Your task to perform on an android device: Open Google Maps and go to "Timeline" Image 0: 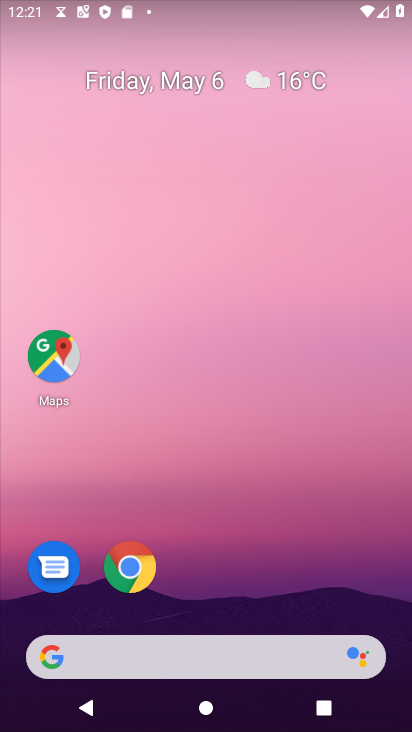
Step 0: drag from (260, 604) to (351, 119)
Your task to perform on an android device: Open Google Maps and go to "Timeline" Image 1: 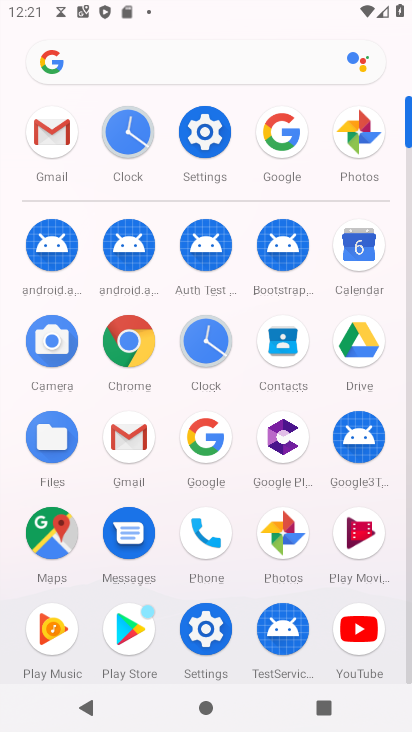
Step 1: click (51, 537)
Your task to perform on an android device: Open Google Maps and go to "Timeline" Image 2: 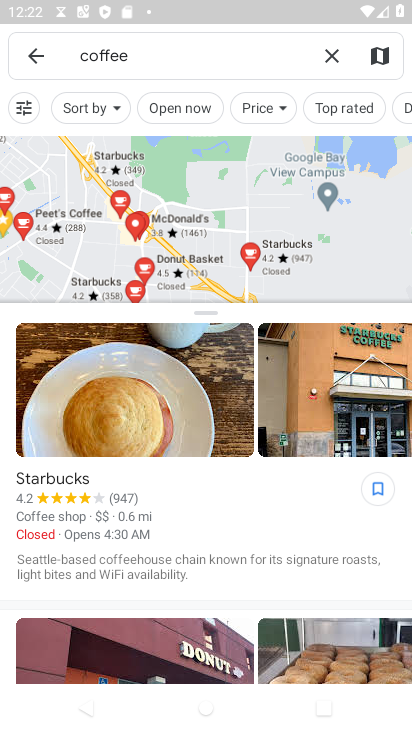
Step 2: click (32, 57)
Your task to perform on an android device: Open Google Maps and go to "Timeline" Image 3: 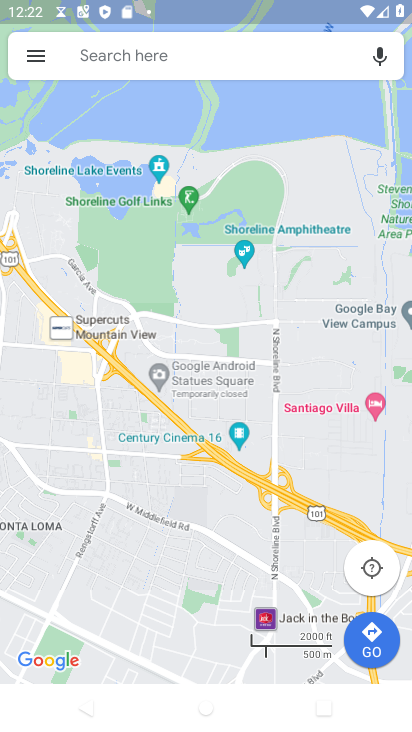
Step 3: click (32, 56)
Your task to perform on an android device: Open Google Maps and go to "Timeline" Image 4: 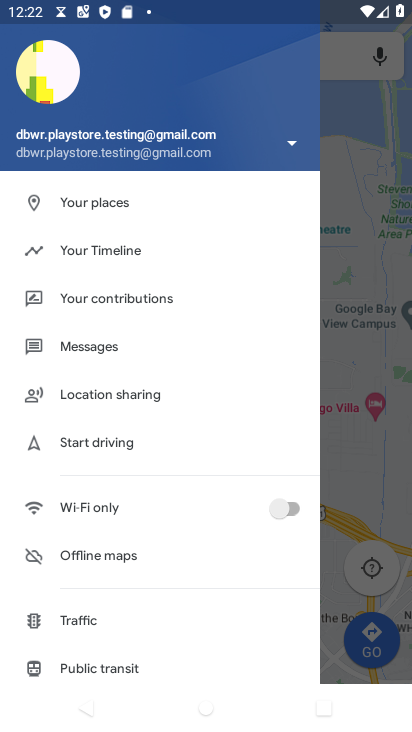
Step 4: click (109, 258)
Your task to perform on an android device: Open Google Maps and go to "Timeline" Image 5: 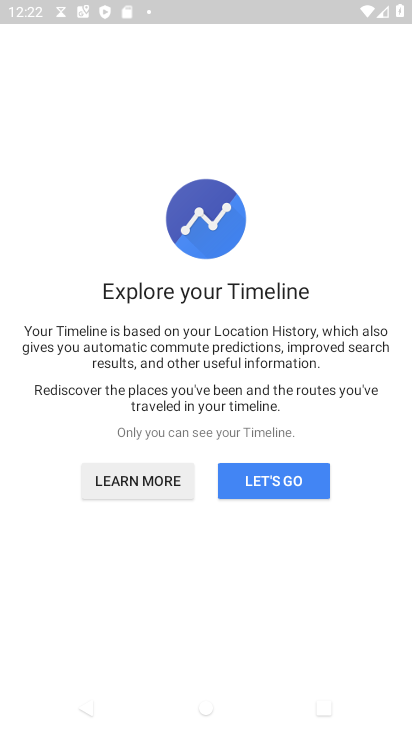
Step 5: click (294, 485)
Your task to perform on an android device: Open Google Maps and go to "Timeline" Image 6: 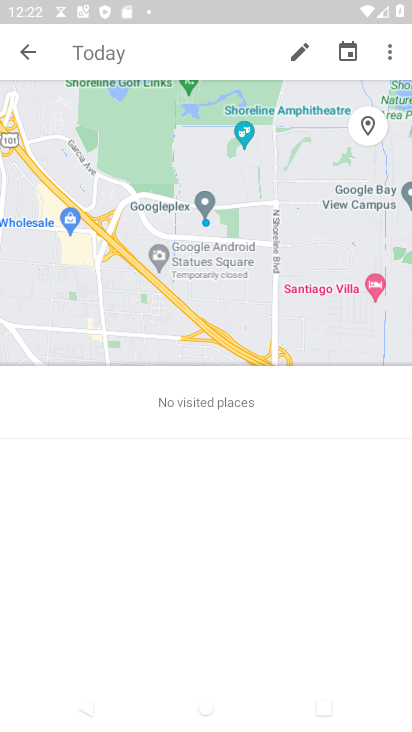
Step 6: task complete